Your task to perform on an android device: toggle data saver in the chrome app Image 0: 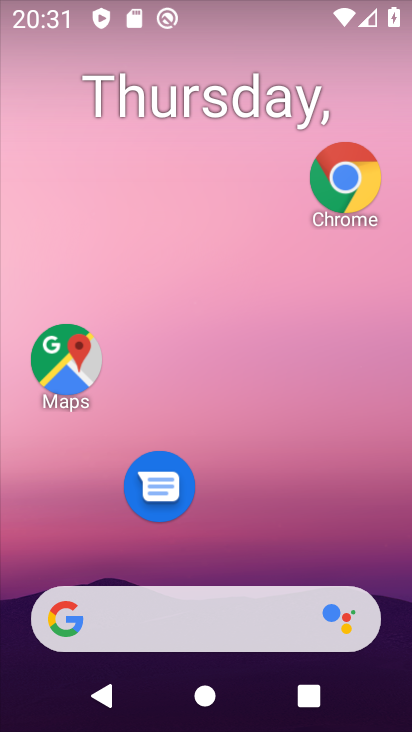
Step 0: drag from (213, 553) to (91, 15)
Your task to perform on an android device: toggle data saver in the chrome app Image 1: 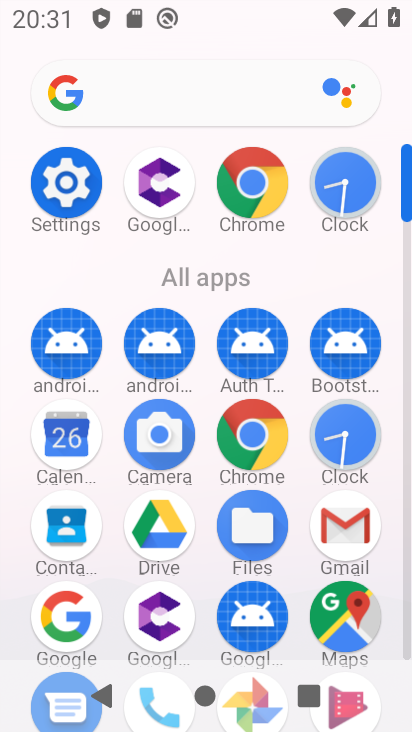
Step 1: click (242, 193)
Your task to perform on an android device: toggle data saver in the chrome app Image 2: 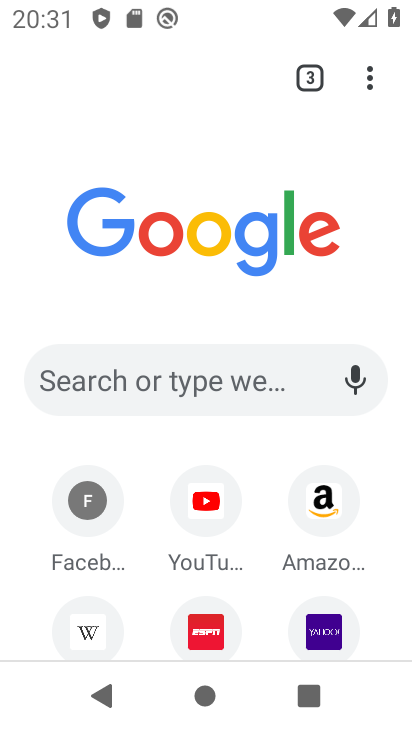
Step 2: drag from (364, 81) to (81, 557)
Your task to perform on an android device: toggle data saver in the chrome app Image 3: 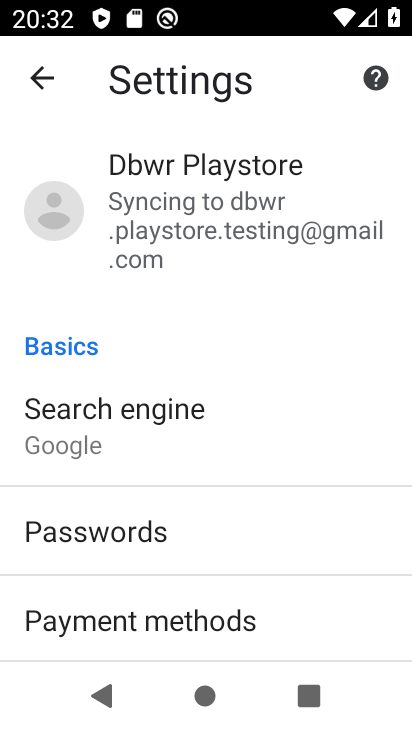
Step 3: drag from (251, 508) to (165, 70)
Your task to perform on an android device: toggle data saver in the chrome app Image 4: 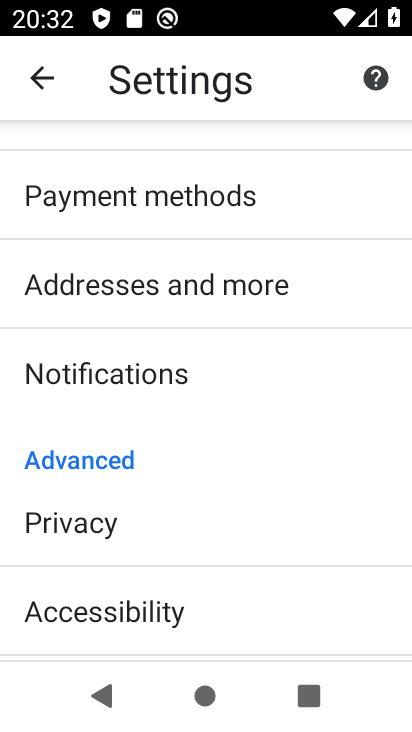
Step 4: drag from (151, 522) to (76, 27)
Your task to perform on an android device: toggle data saver in the chrome app Image 5: 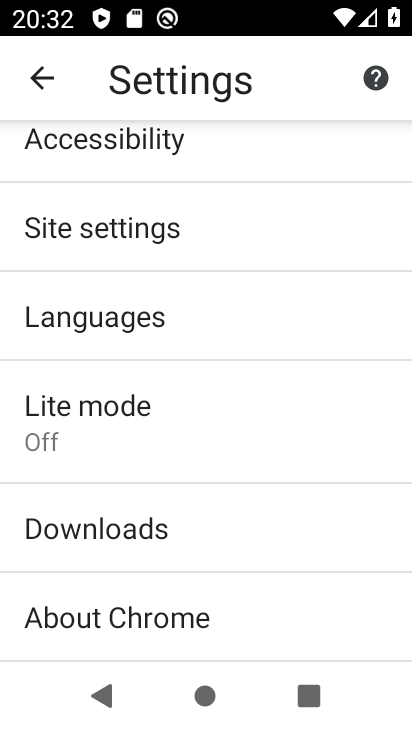
Step 5: drag from (126, 555) to (76, 100)
Your task to perform on an android device: toggle data saver in the chrome app Image 6: 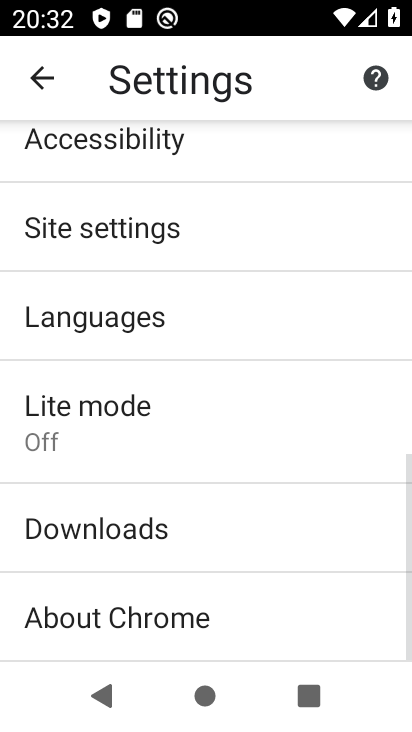
Step 6: click (114, 402)
Your task to perform on an android device: toggle data saver in the chrome app Image 7: 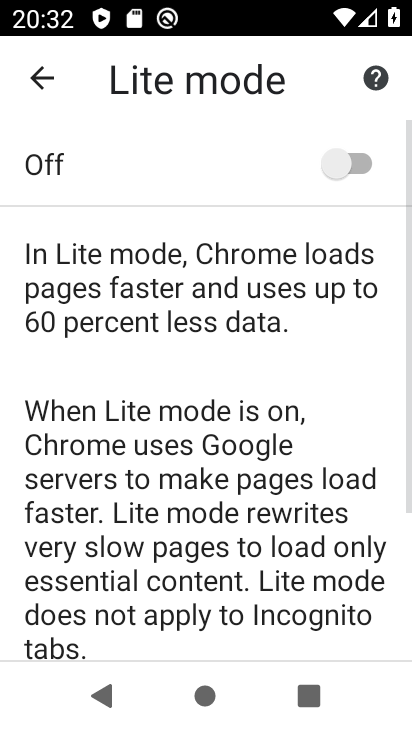
Step 7: click (333, 155)
Your task to perform on an android device: toggle data saver in the chrome app Image 8: 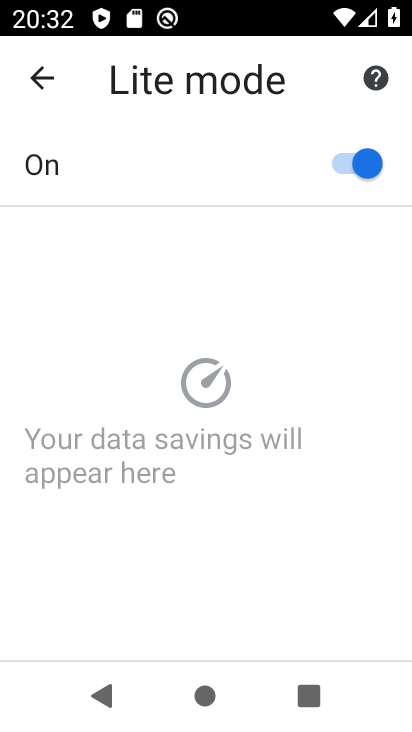
Step 8: task complete